Your task to perform on an android device: open the mobile data screen to see how much data has been used Image 0: 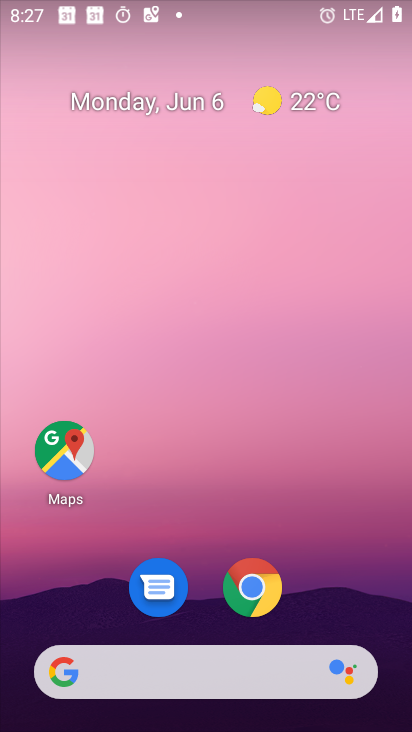
Step 0: drag from (244, 640) to (228, 207)
Your task to perform on an android device: open the mobile data screen to see how much data has been used Image 1: 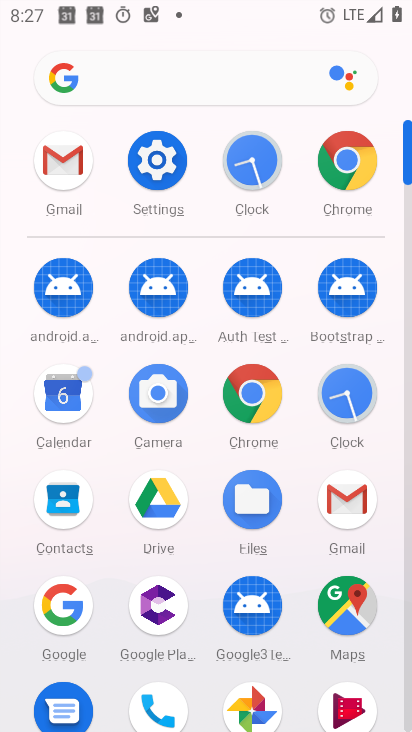
Step 1: click (158, 155)
Your task to perform on an android device: open the mobile data screen to see how much data has been used Image 2: 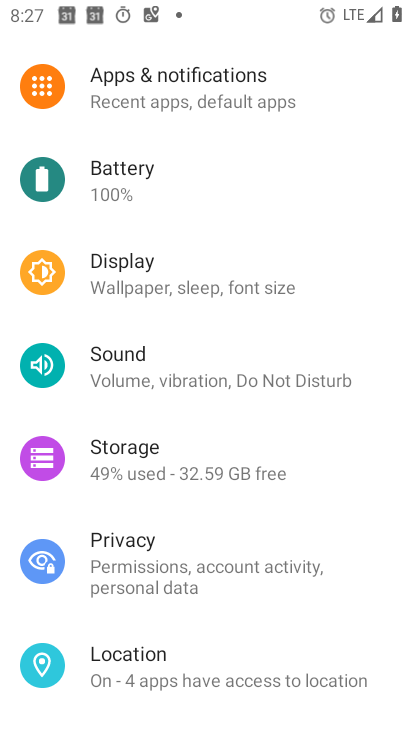
Step 2: drag from (234, 73) to (259, 561)
Your task to perform on an android device: open the mobile data screen to see how much data has been used Image 3: 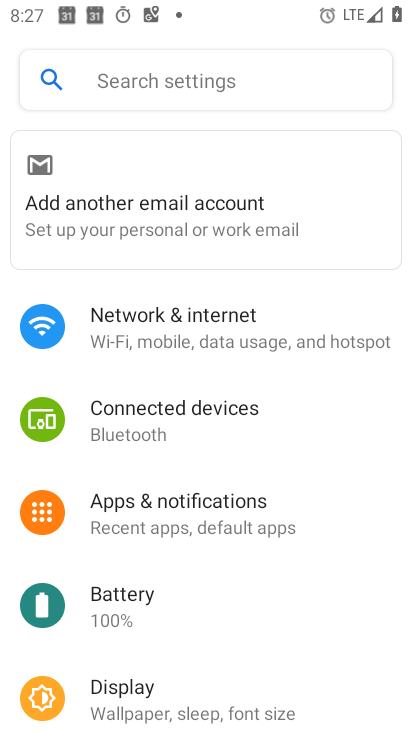
Step 3: click (202, 335)
Your task to perform on an android device: open the mobile data screen to see how much data has been used Image 4: 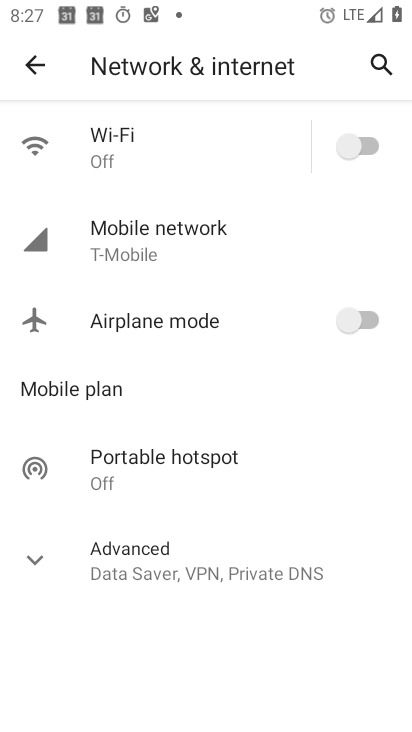
Step 4: click (143, 239)
Your task to perform on an android device: open the mobile data screen to see how much data has been used Image 5: 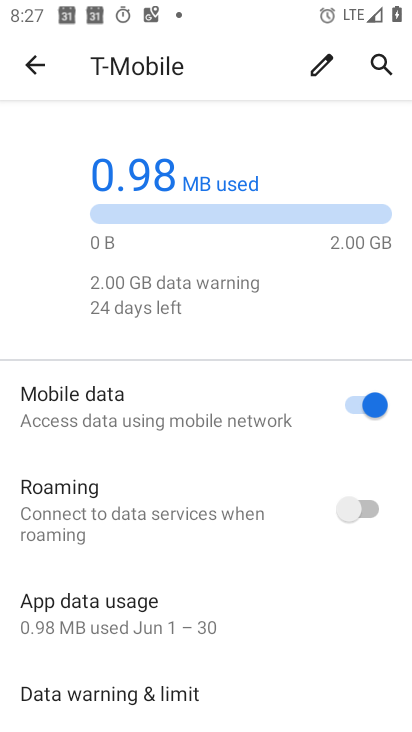
Step 5: task complete